Your task to perform on an android device: What's the weather? Image 0: 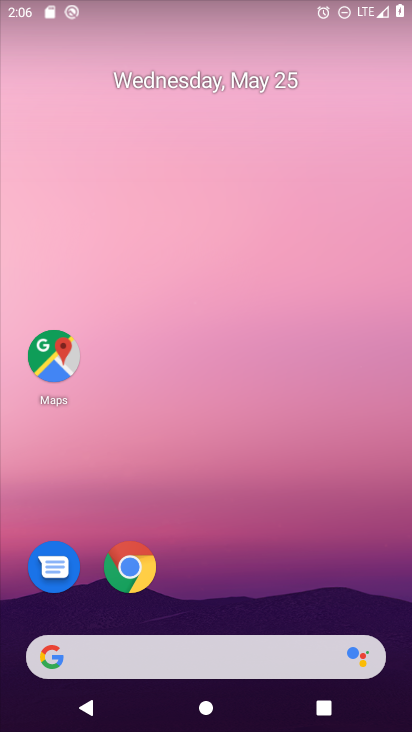
Step 0: drag from (3, 204) to (332, 204)
Your task to perform on an android device: What's the weather? Image 1: 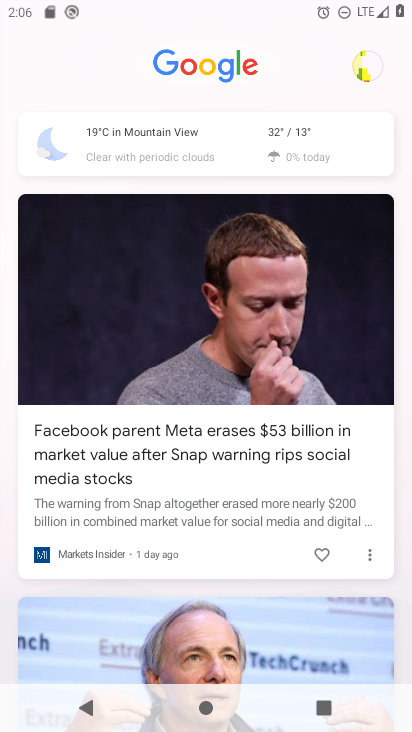
Step 1: click (245, 134)
Your task to perform on an android device: What's the weather? Image 2: 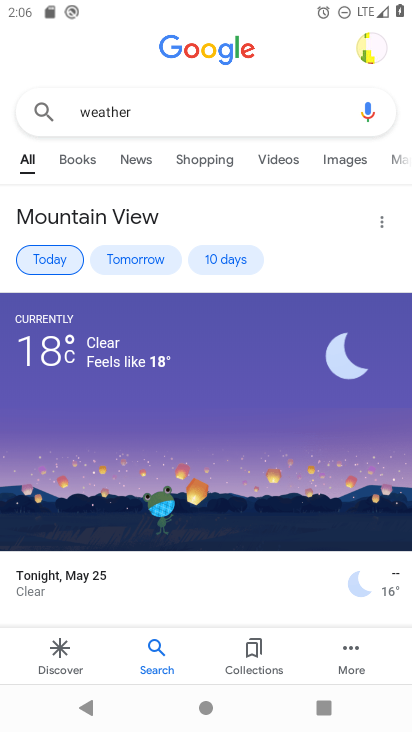
Step 2: task complete